Your task to perform on an android device: Go to Google maps Image 0: 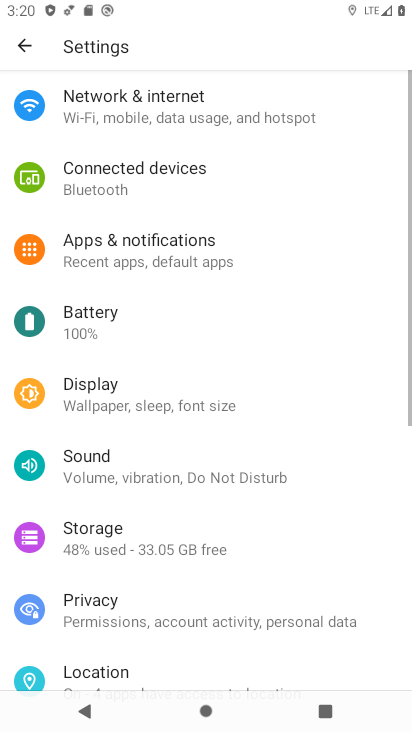
Step 0: press home button
Your task to perform on an android device: Go to Google maps Image 1: 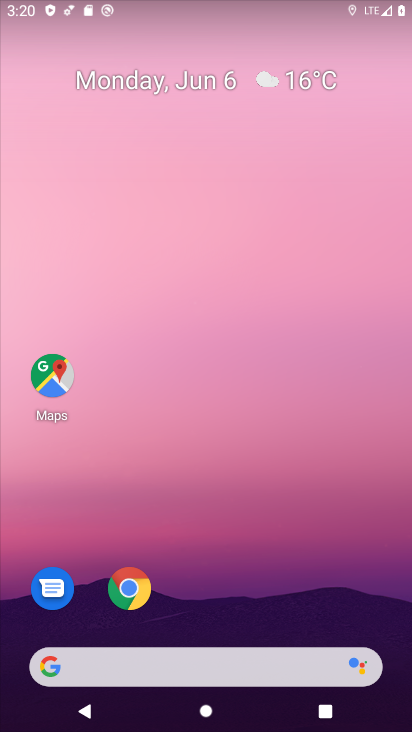
Step 1: click (56, 375)
Your task to perform on an android device: Go to Google maps Image 2: 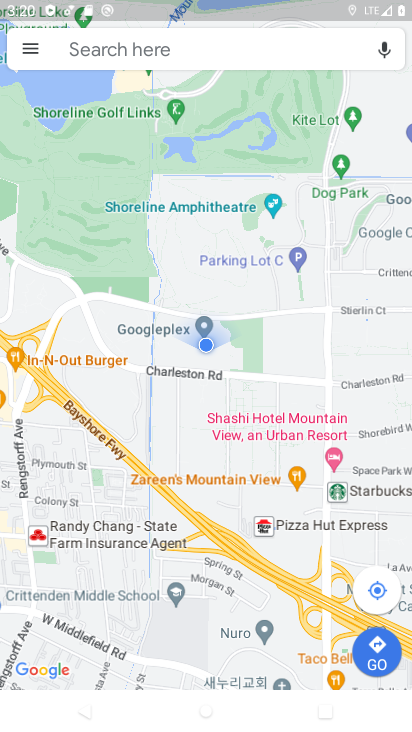
Step 2: task complete